Your task to perform on an android device: Open settings Image 0: 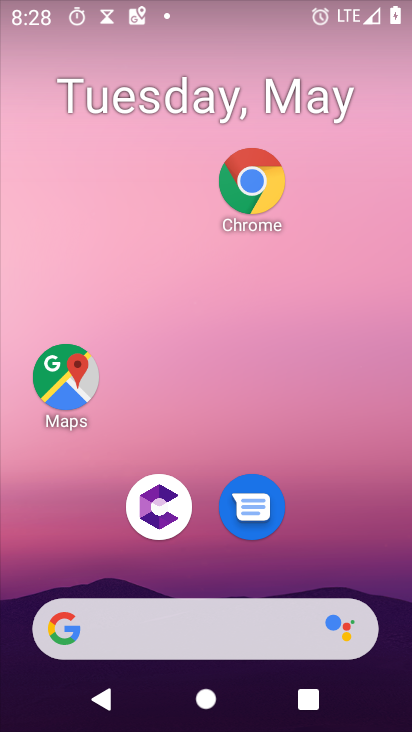
Step 0: drag from (304, 552) to (308, 44)
Your task to perform on an android device: Open settings Image 1: 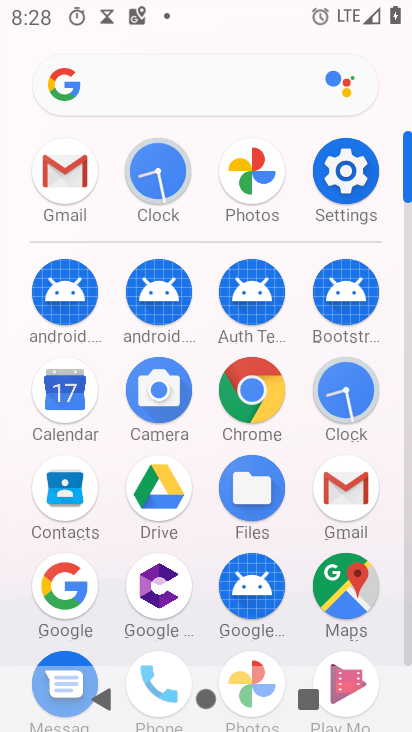
Step 1: click (347, 164)
Your task to perform on an android device: Open settings Image 2: 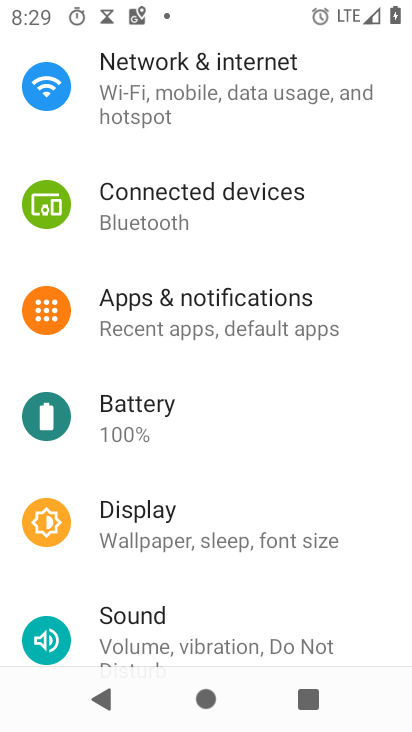
Step 2: task complete